Your task to perform on an android device: Show me popular videos on Youtube Image 0: 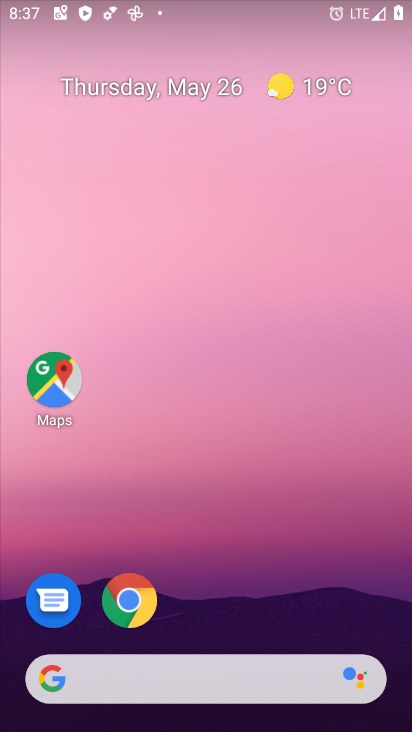
Step 0: press home button
Your task to perform on an android device: Show me popular videos on Youtube Image 1: 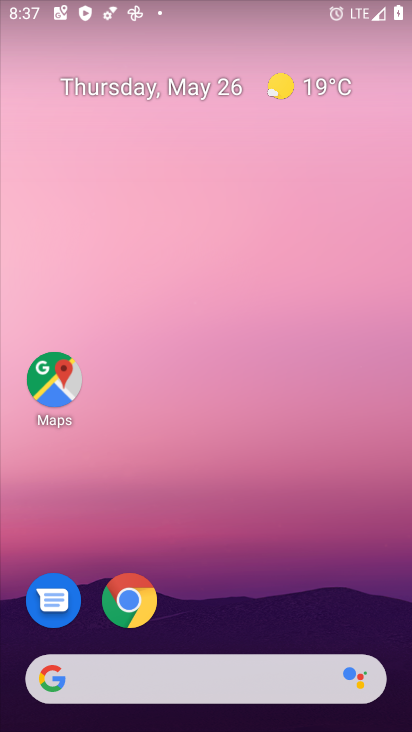
Step 1: drag from (331, 623) to (269, 18)
Your task to perform on an android device: Show me popular videos on Youtube Image 2: 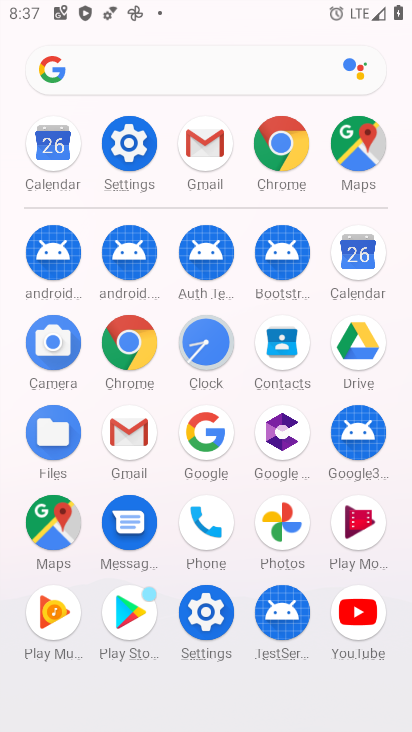
Step 2: drag from (307, 637) to (368, 619)
Your task to perform on an android device: Show me popular videos on Youtube Image 3: 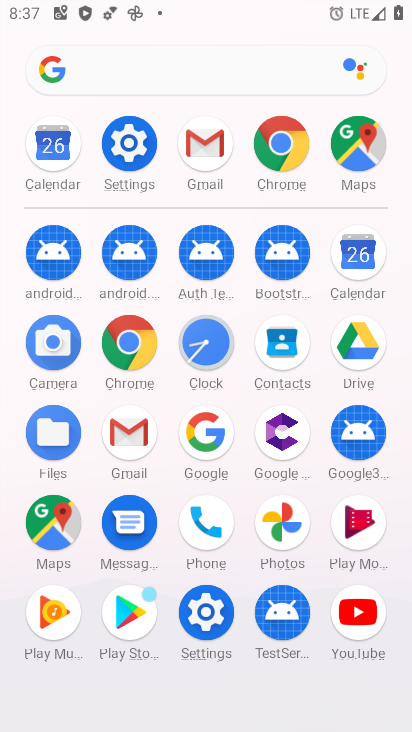
Step 3: click (357, 617)
Your task to perform on an android device: Show me popular videos on Youtube Image 4: 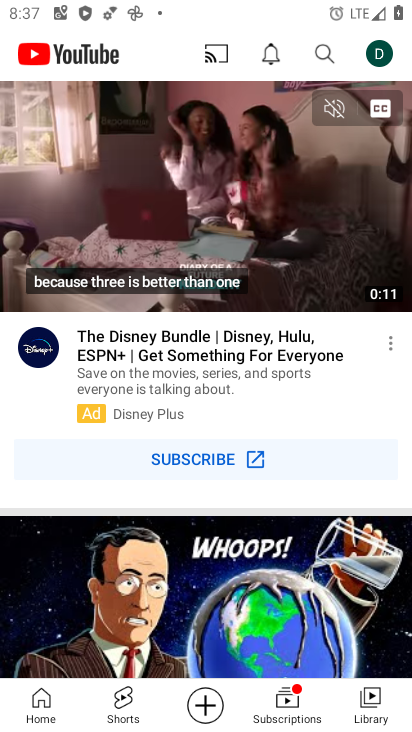
Step 4: click (31, 705)
Your task to perform on an android device: Show me popular videos on Youtube Image 5: 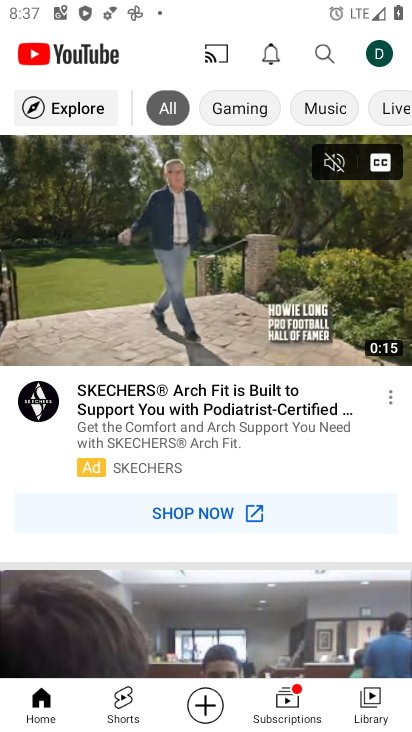
Step 5: click (51, 104)
Your task to perform on an android device: Show me popular videos on Youtube Image 6: 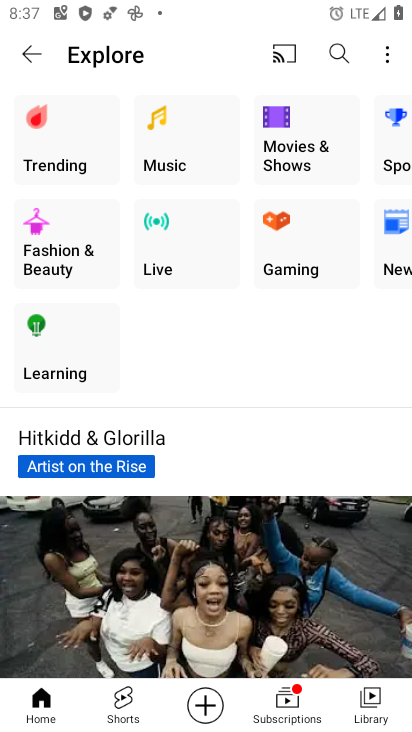
Step 6: click (49, 168)
Your task to perform on an android device: Show me popular videos on Youtube Image 7: 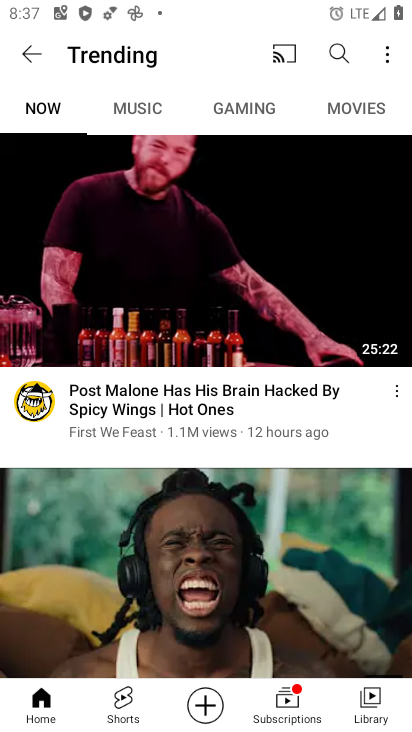
Step 7: task complete